Your task to perform on an android device: allow cookies in the chrome app Image 0: 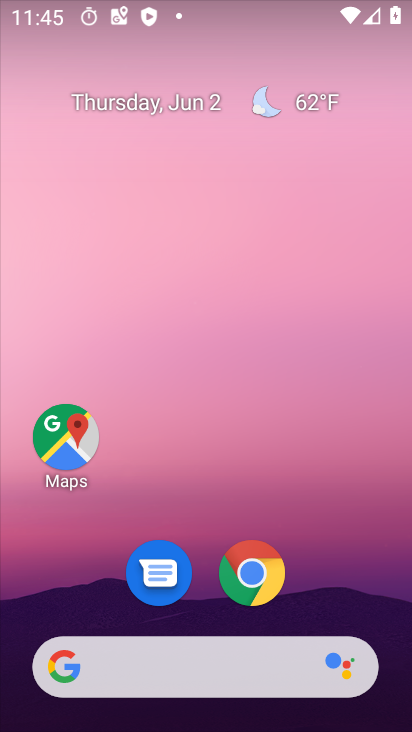
Step 0: drag from (314, 680) to (359, 61)
Your task to perform on an android device: allow cookies in the chrome app Image 1: 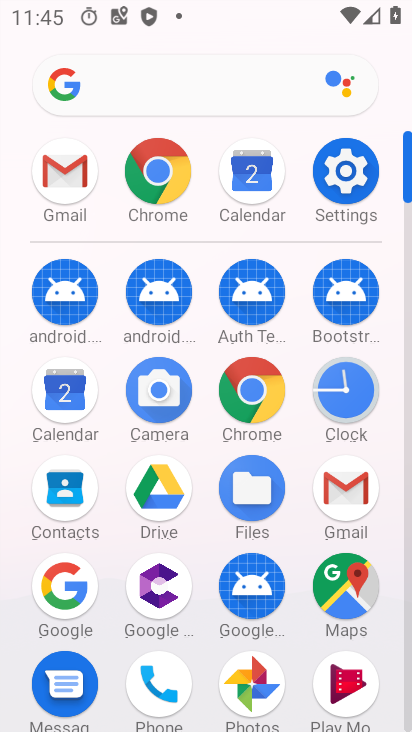
Step 1: click (254, 409)
Your task to perform on an android device: allow cookies in the chrome app Image 2: 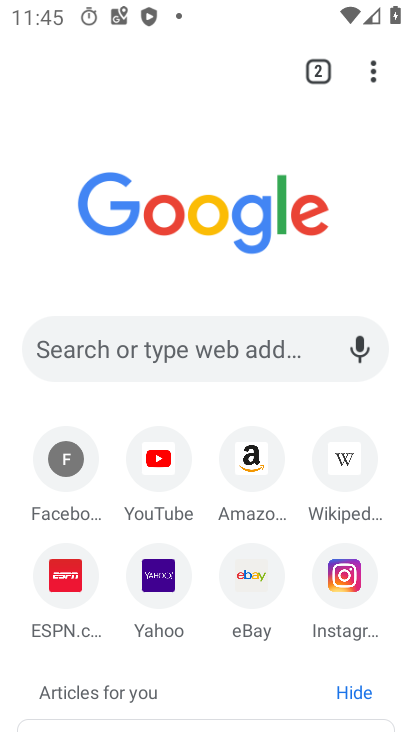
Step 2: drag from (374, 74) to (147, 598)
Your task to perform on an android device: allow cookies in the chrome app Image 3: 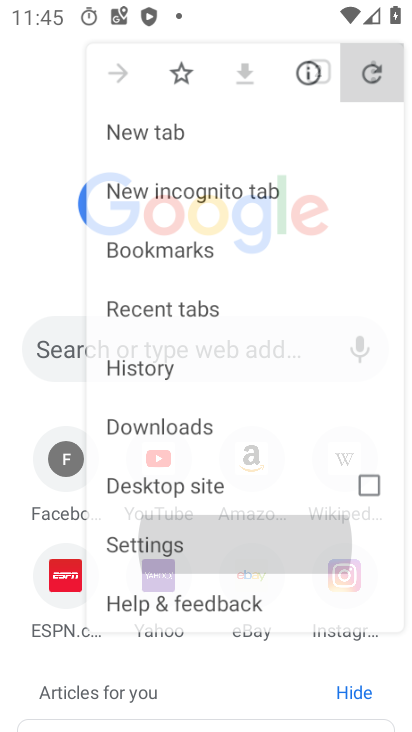
Step 3: click (143, 599)
Your task to perform on an android device: allow cookies in the chrome app Image 4: 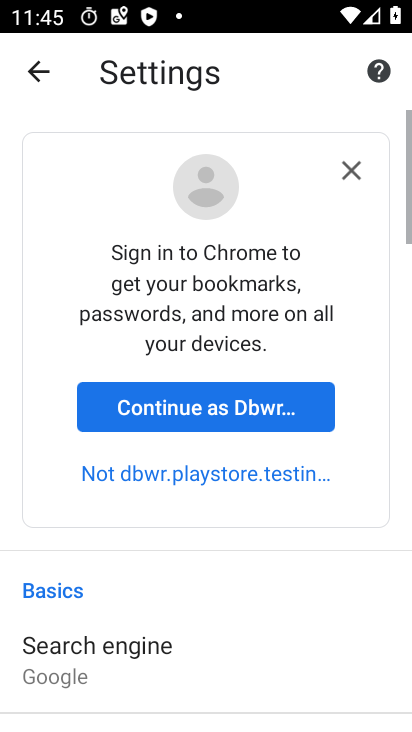
Step 4: drag from (156, 653) to (135, 46)
Your task to perform on an android device: allow cookies in the chrome app Image 5: 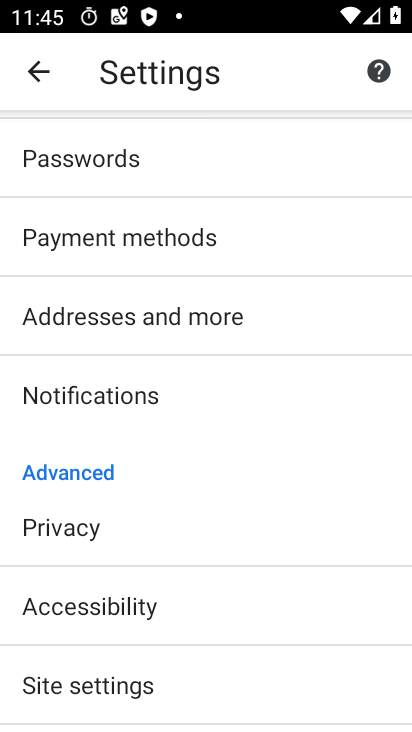
Step 5: click (166, 252)
Your task to perform on an android device: allow cookies in the chrome app Image 6: 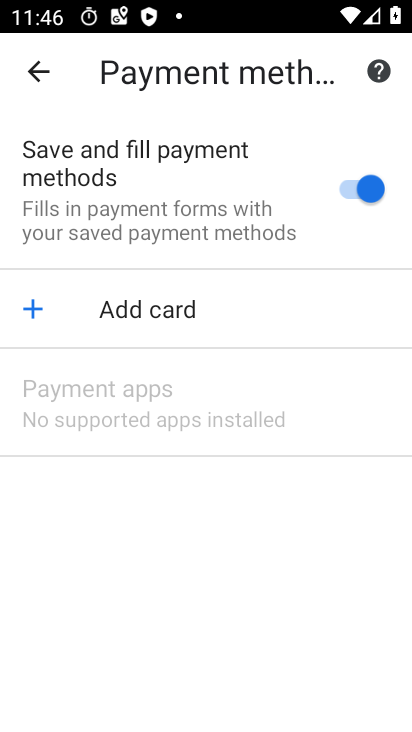
Step 6: press back button
Your task to perform on an android device: allow cookies in the chrome app Image 7: 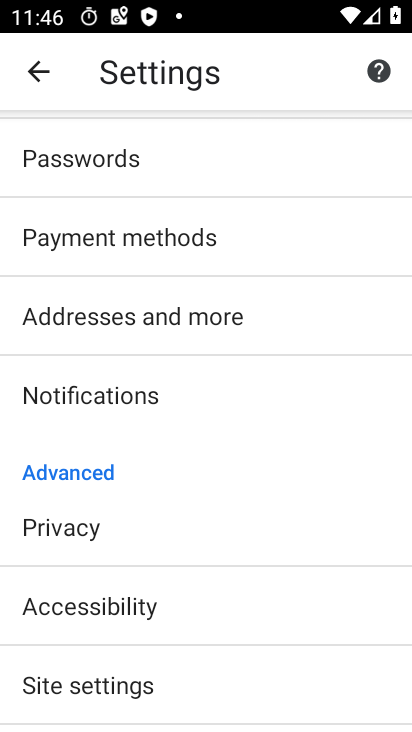
Step 7: click (188, 685)
Your task to perform on an android device: allow cookies in the chrome app Image 8: 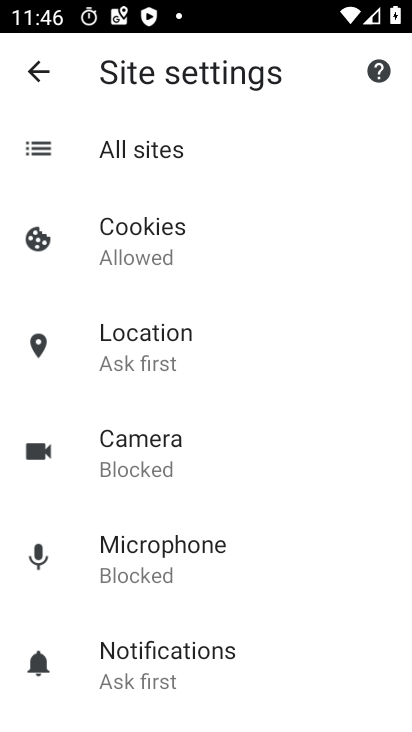
Step 8: click (129, 239)
Your task to perform on an android device: allow cookies in the chrome app Image 9: 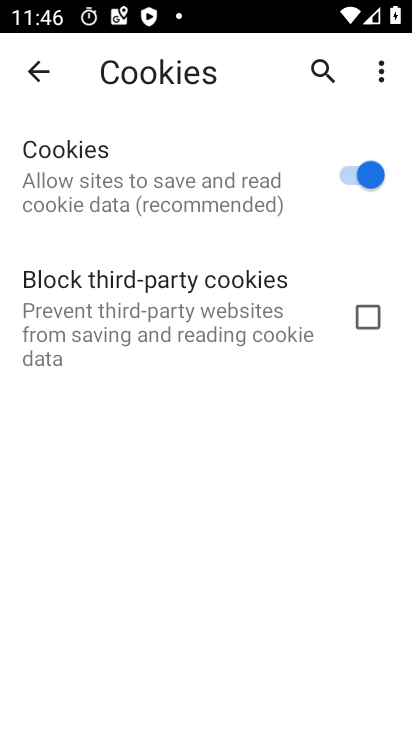
Step 9: task complete